Your task to perform on an android device: Empty the shopping cart on walmart.com. Search for "macbook air" on walmart.com, select the first entry, and add it to the cart. Image 0: 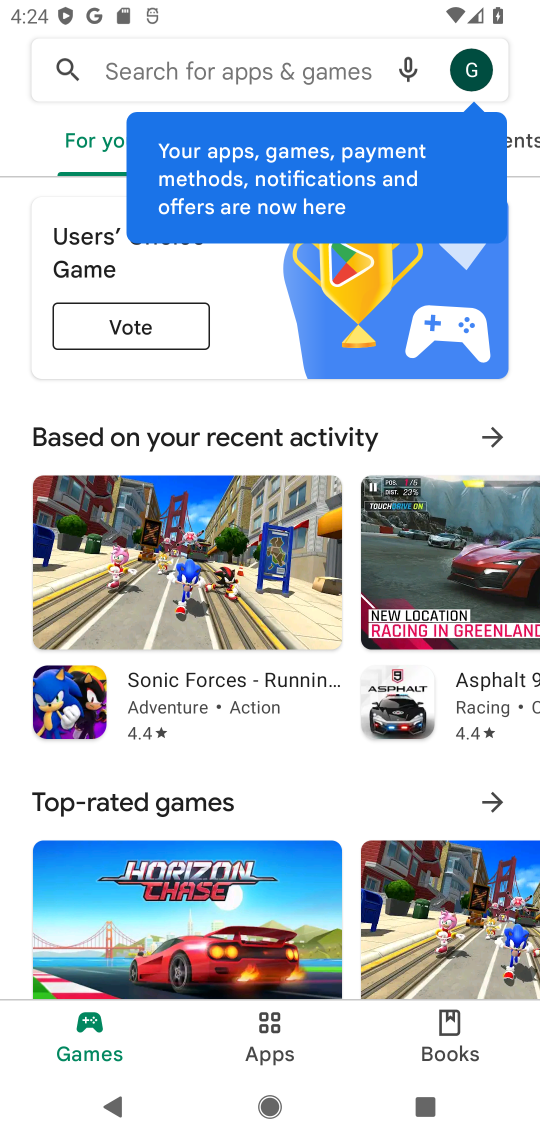
Step 0: press home button
Your task to perform on an android device: Empty the shopping cart on walmart.com. Search for "macbook air" on walmart.com, select the first entry, and add it to the cart. Image 1: 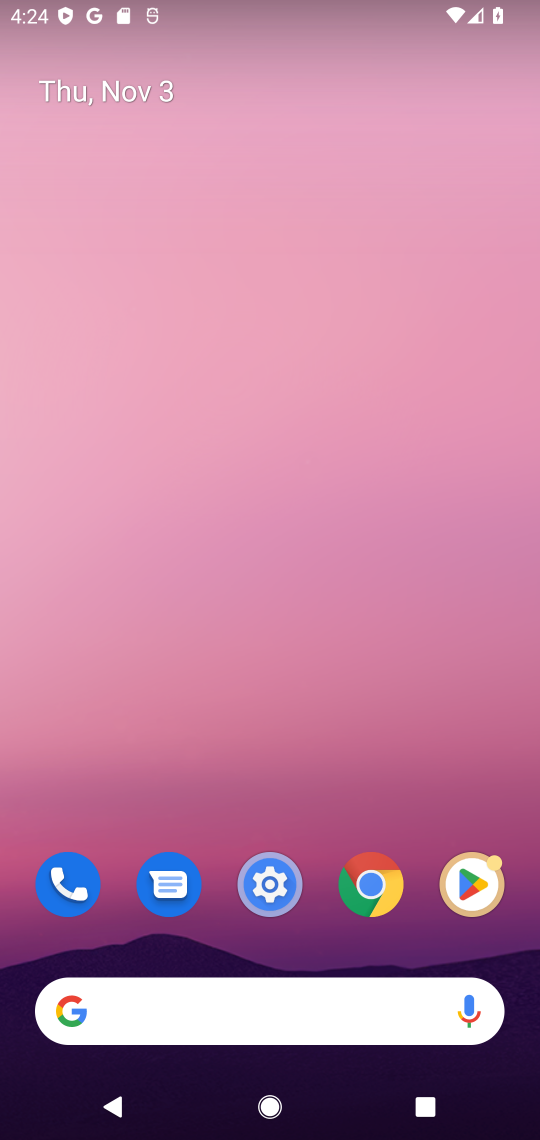
Step 1: click (108, 1012)
Your task to perform on an android device: Empty the shopping cart on walmart.com. Search for "macbook air" on walmart.com, select the first entry, and add it to the cart. Image 2: 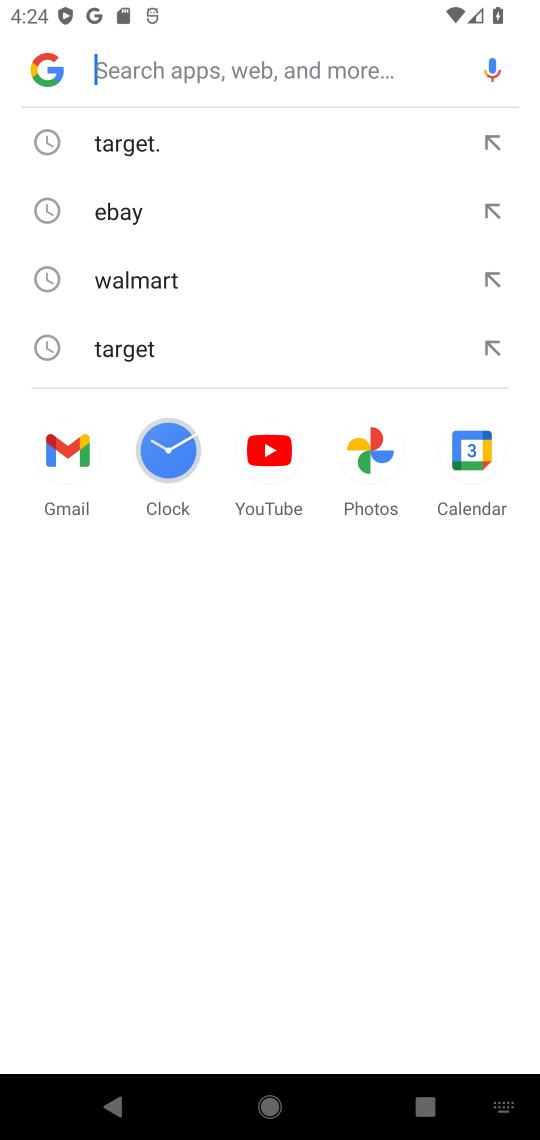
Step 2: type " walmart.com"
Your task to perform on an android device: Empty the shopping cart on walmart.com. Search for "macbook air" on walmart.com, select the first entry, and add it to the cart. Image 3: 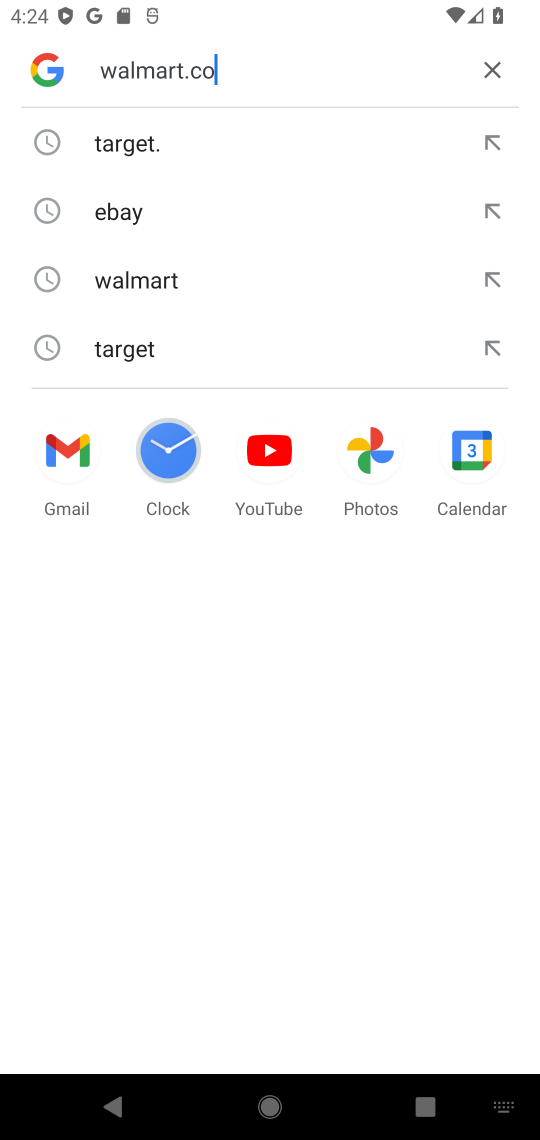
Step 3: press enter
Your task to perform on an android device: Empty the shopping cart on walmart.com. Search for "macbook air" on walmart.com, select the first entry, and add it to the cart. Image 4: 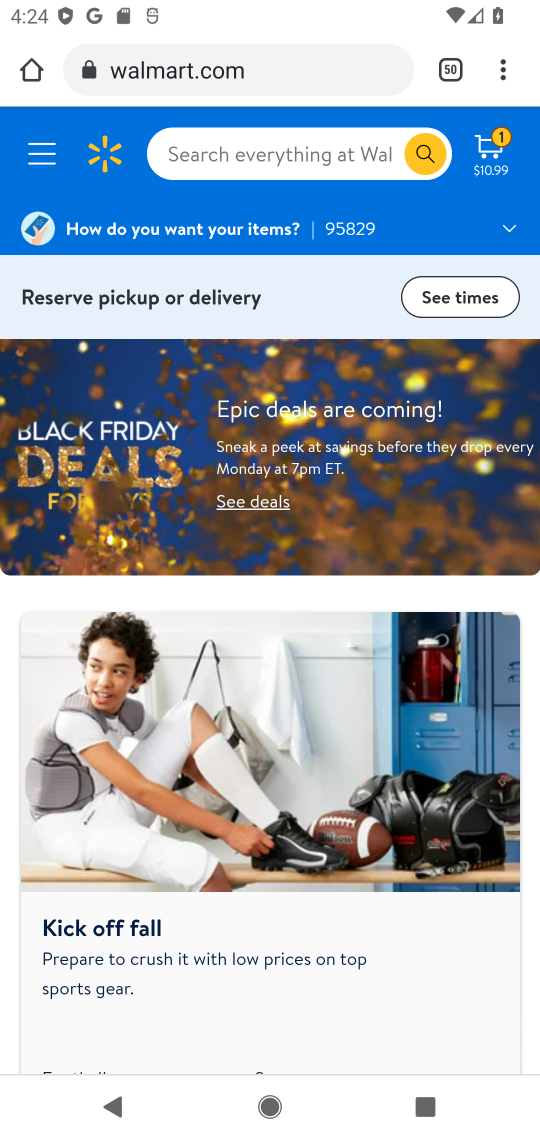
Step 4: click (493, 150)
Your task to perform on an android device: Empty the shopping cart on walmart.com. Search for "macbook air" on walmart.com, select the first entry, and add it to the cart. Image 5: 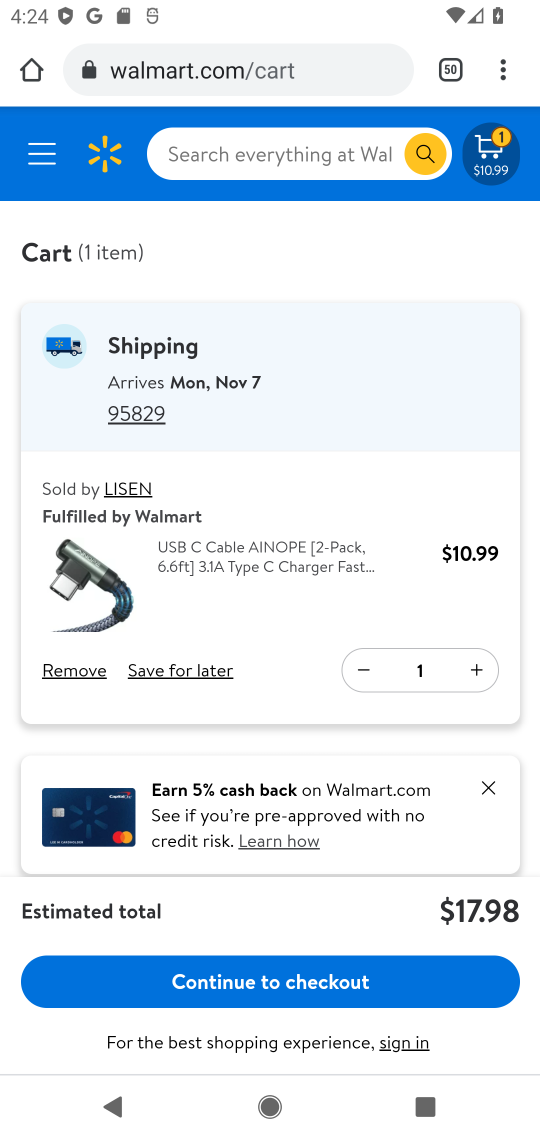
Step 5: click (69, 670)
Your task to perform on an android device: Empty the shopping cart on walmart.com. Search for "macbook air" on walmart.com, select the first entry, and add it to the cart. Image 6: 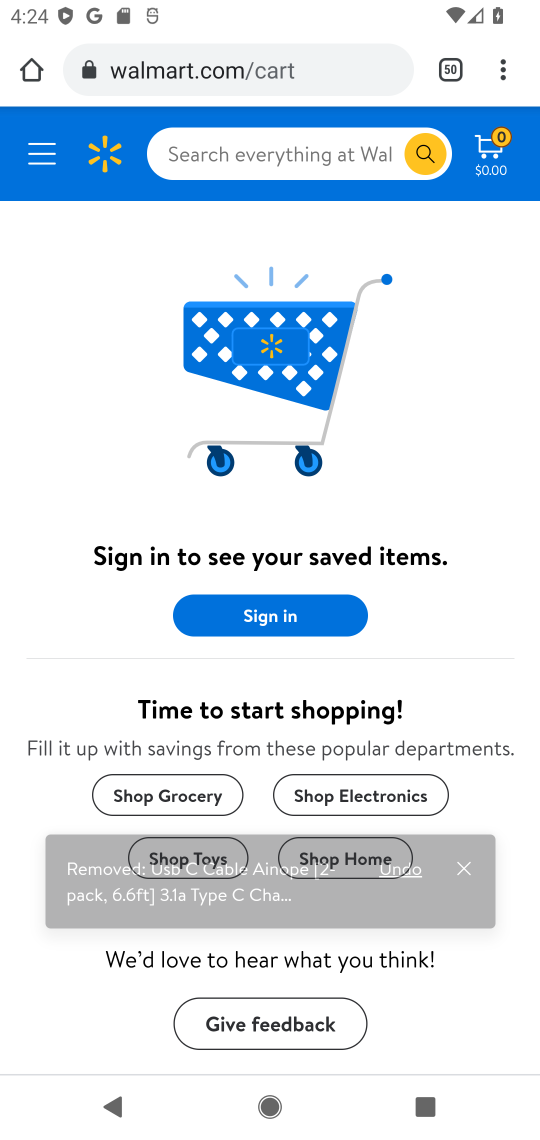
Step 6: click (188, 154)
Your task to perform on an android device: Empty the shopping cart on walmart.com. Search for "macbook air" on walmart.com, select the first entry, and add it to the cart. Image 7: 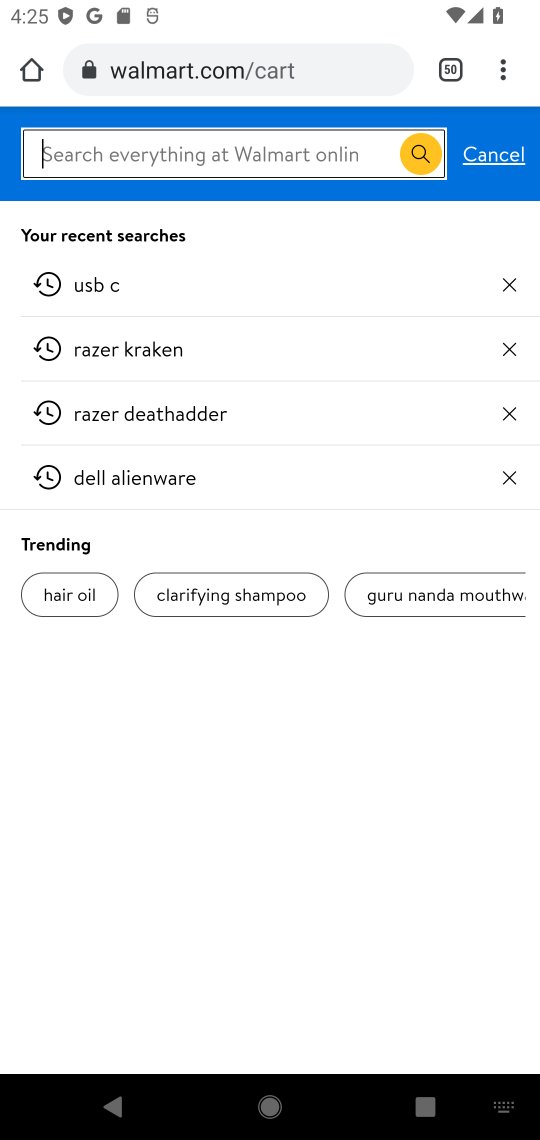
Step 7: type "macbook air"
Your task to perform on an android device: Empty the shopping cart on walmart.com. Search for "macbook air" on walmart.com, select the first entry, and add it to the cart. Image 8: 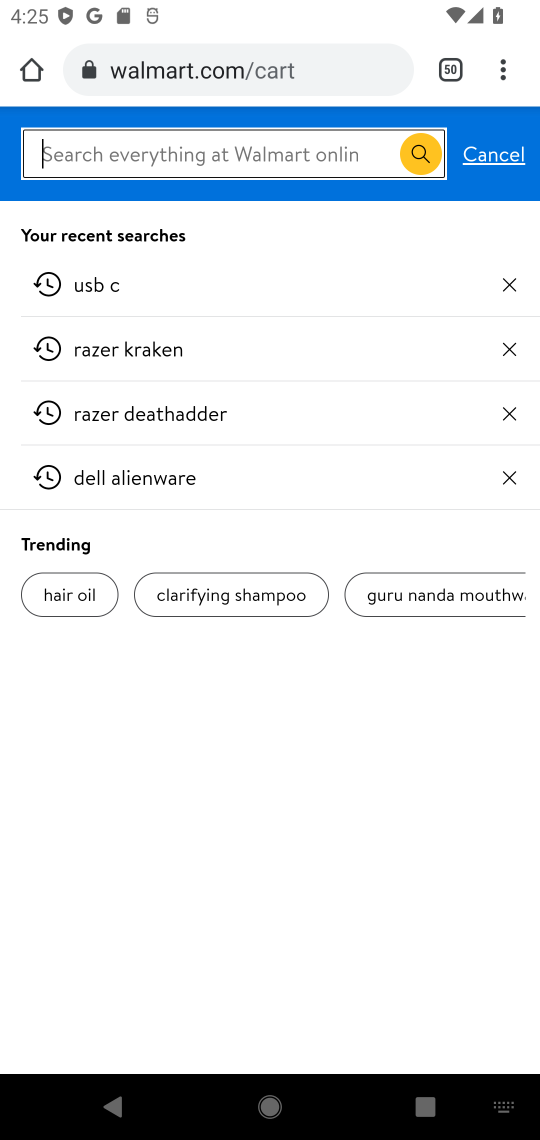
Step 8: press enter
Your task to perform on an android device: Empty the shopping cart on walmart.com. Search for "macbook air" on walmart.com, select the first entry, and add it to the cart. Image 9: 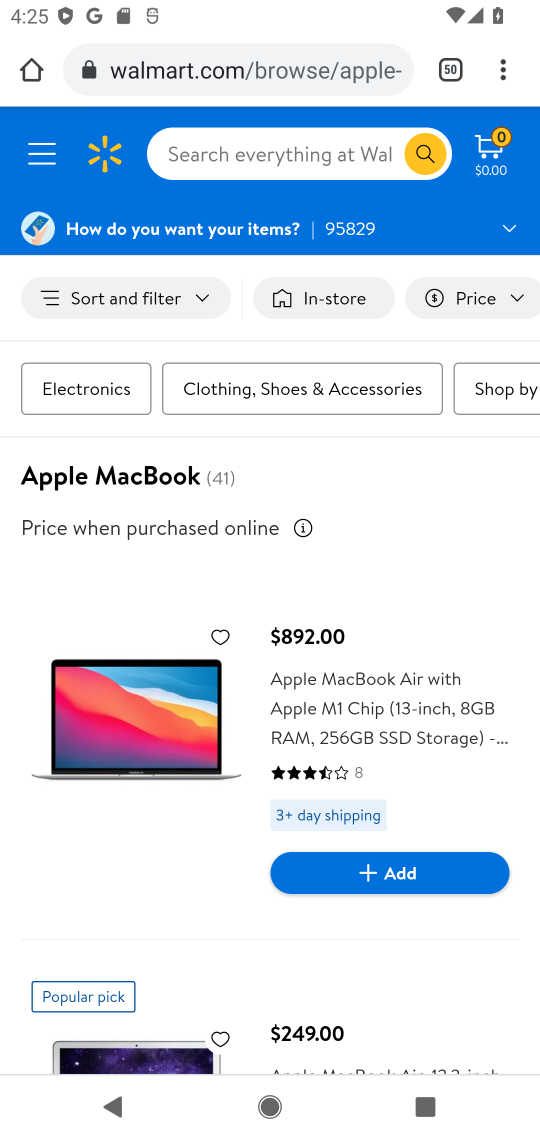
Step 9: drag from (427, 940) to (421, 710)
Your task to perform on an android device: Empty the shopping cart on walmart.com. Search for "macbook air" on walmart.com, select the first entry, and add it to the cart. Image 10: 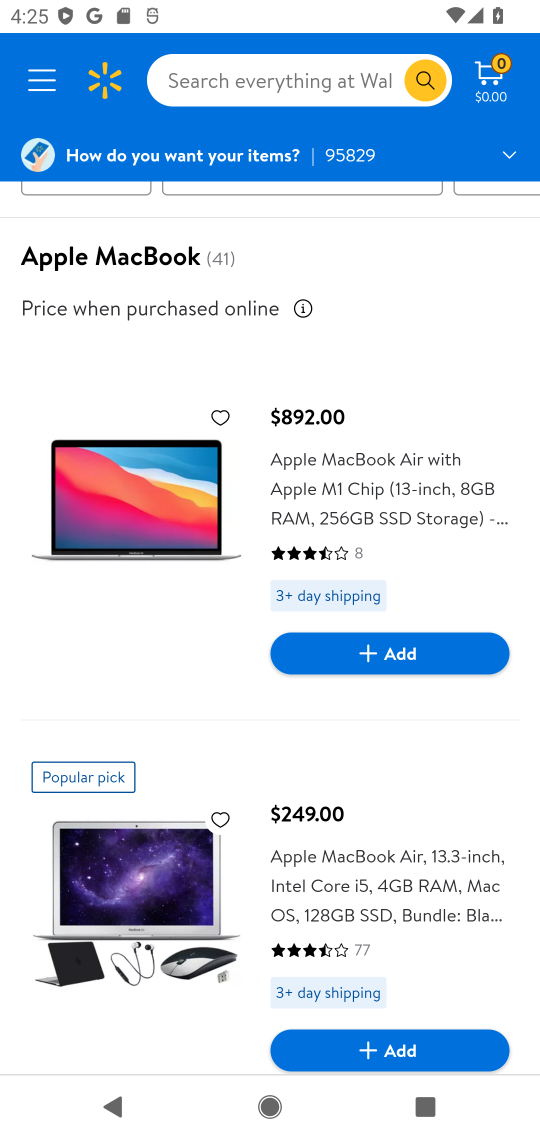
Step 10: click (403, 655)
Your task to perform on an android device: Empty the shopping cart on walmart.com. Search for "macbook air" on walmart.com, select the first entry, and add it to the cart. Image 11: 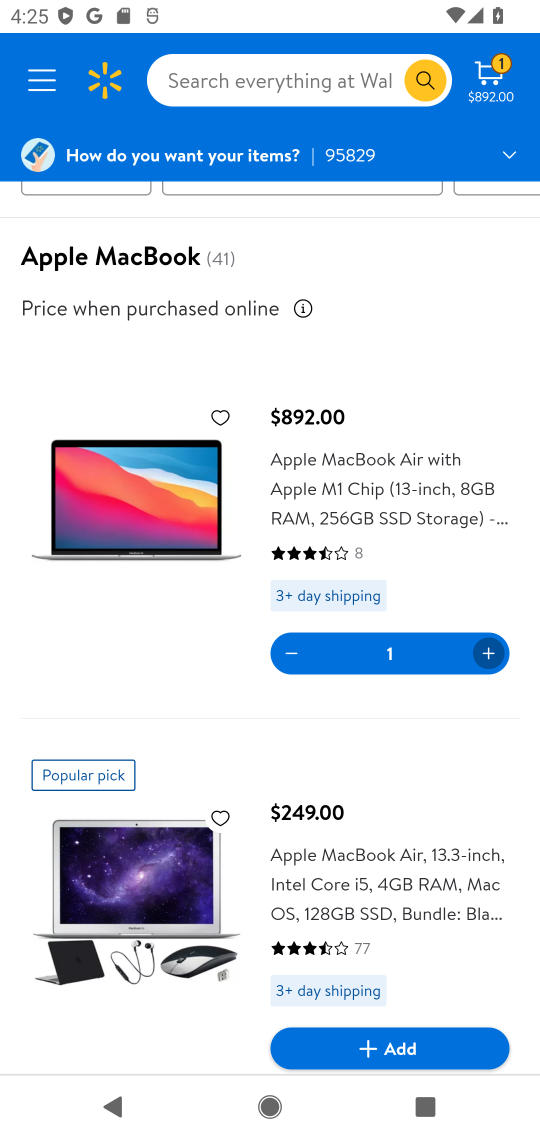
Step 11: task complete